Your task to perform on an android device: move an email to a new category in the gmail app Image 0: 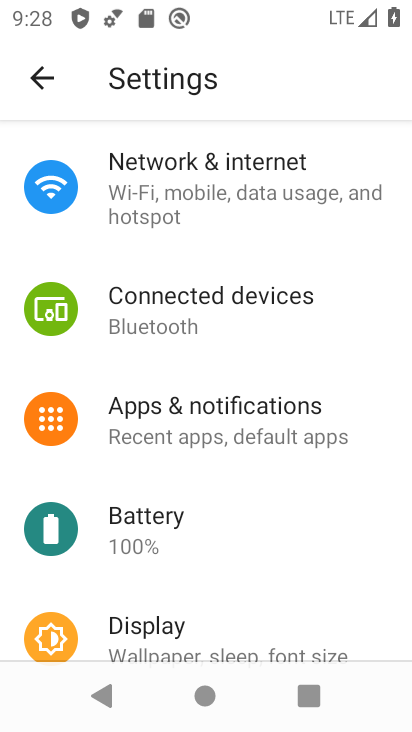
Step 0: press home button
Your task to perform on an android device: move an email to a new category in the gmail app Image 1: 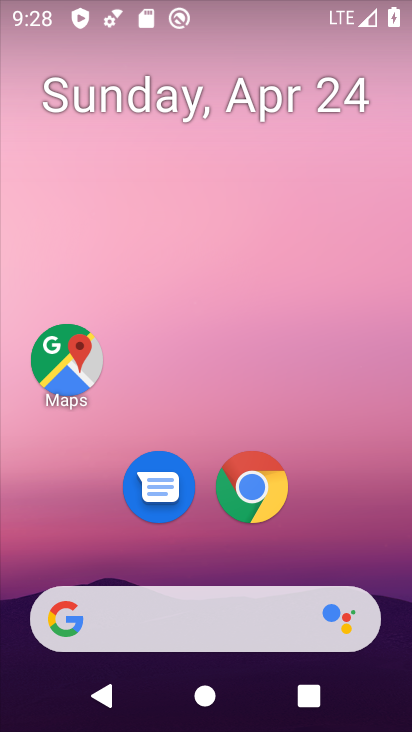
Step 1: drag from (327, 558) to (349, 26)
Your task to perform on an android device: move an email to a new category in the gmail app Image 2: 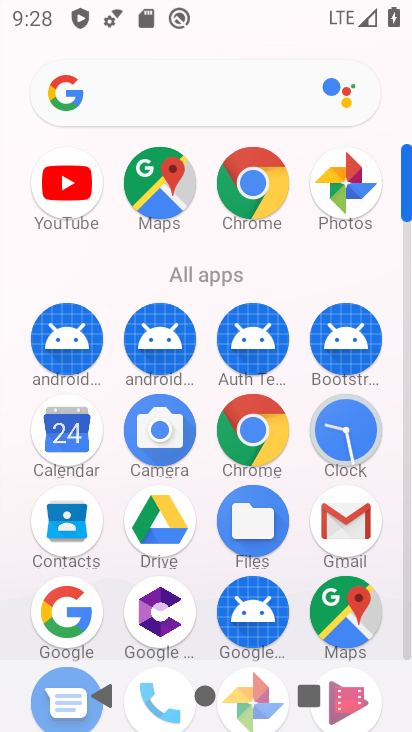
Step 2: click (345, 513)
Your task to perform on an android device: move an email to a new category in the gmail app Image 3: 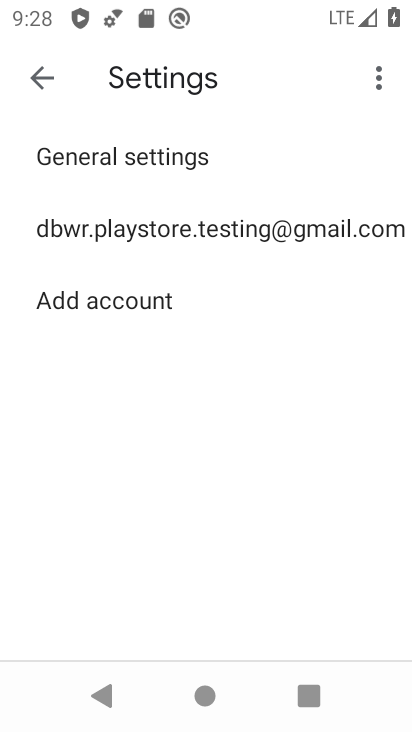
Step 3: click (268, 228)
Your task to perform on an android device: move an email to a new category in the gmail app Image 4: 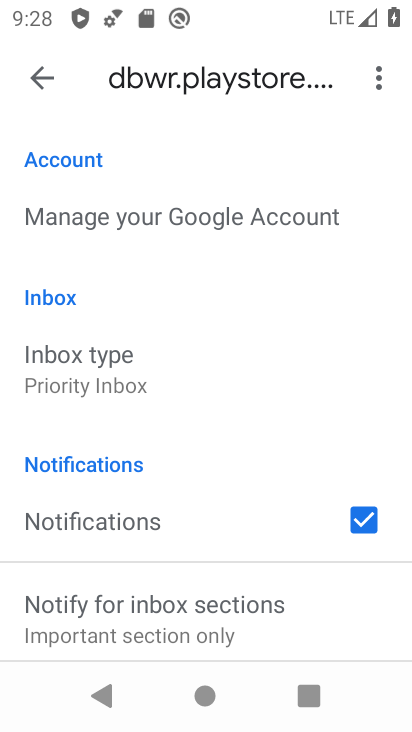
Step 4: click (44, 71)
Your task to perform on an android device: move an email to a new category in the gmail app Image 5: 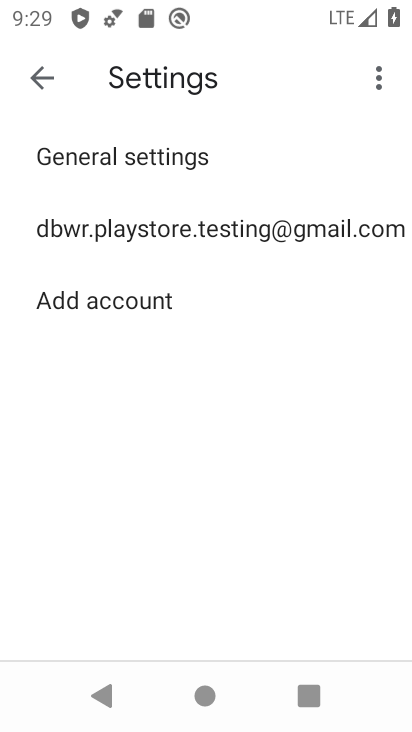
Step 5: click (44, 71)
Your task to perform on an android device: move an email to a new category in the gmail app Image 6: 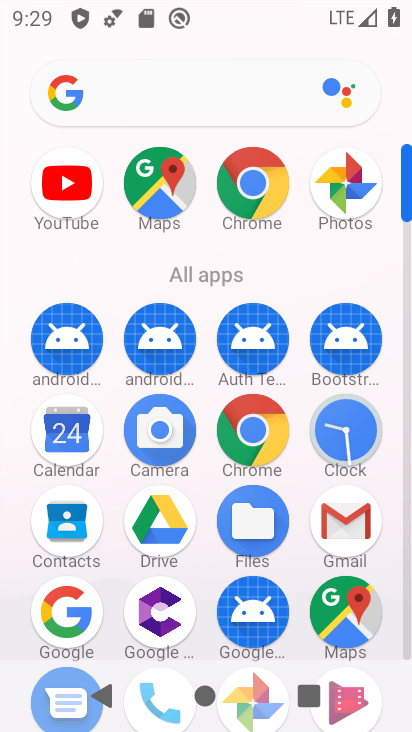
Step 6: click (352, 510)
Your task to perform on an android device: move an email to a new category in the gmail app Image 7: 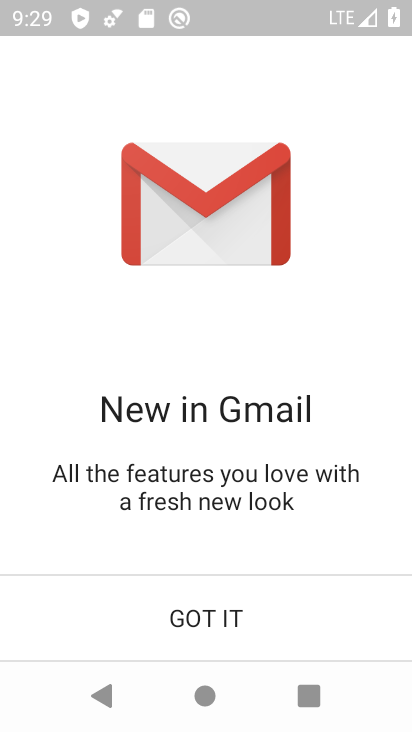
Step 7: click (209, 608)
Your task to perform on an android device: move an email to a new category in the gmail app Image 8: 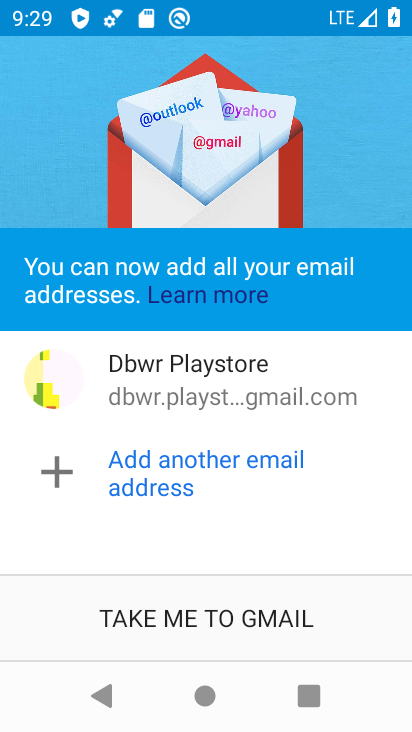
Step 8: click (263, 613)
Your task to perform on an android device: move an email to a new category in the gmail app Image 9: 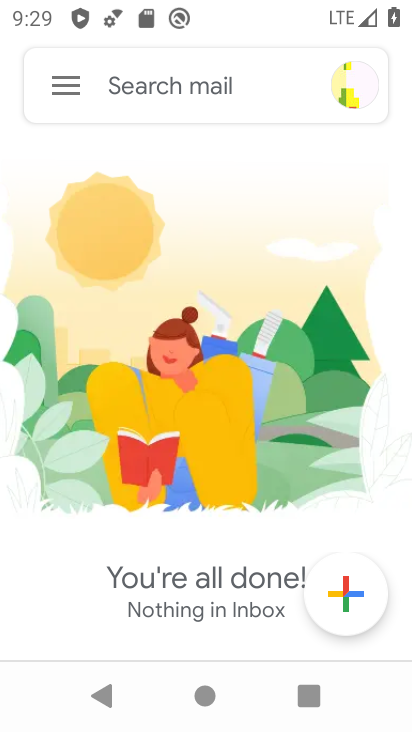
Step 9: task complete